Your task to perform on an android device: turn pop-ups on in chrome Image 0: 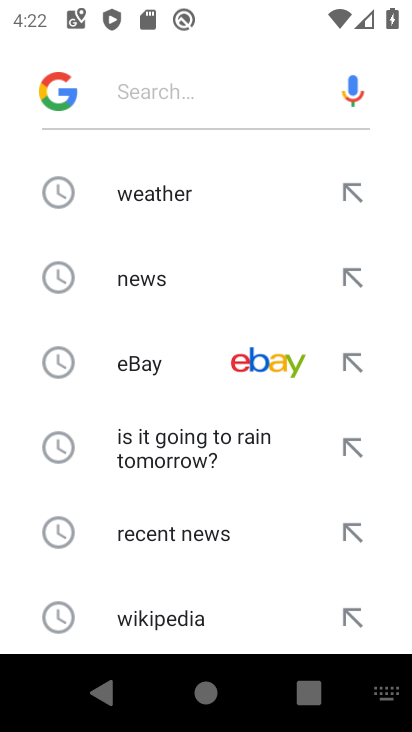
Step 0: press home button
Your task to perform on an android device: turn pop-ups on in chrome Image 1: 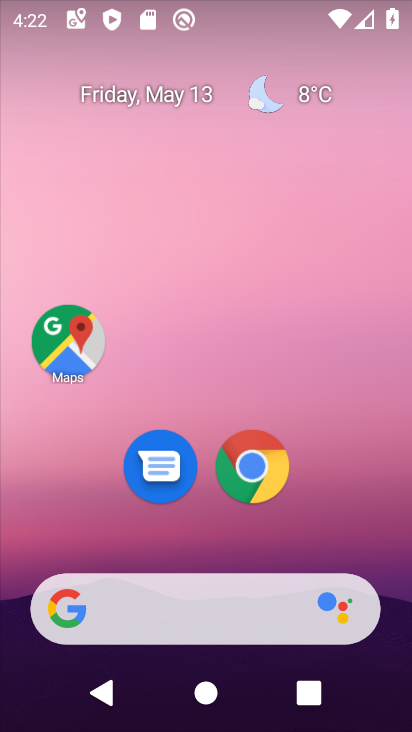
Step 1: click (251, 462)
Your task to perform on an android device: turn pop-ups on in chrome Image 2: 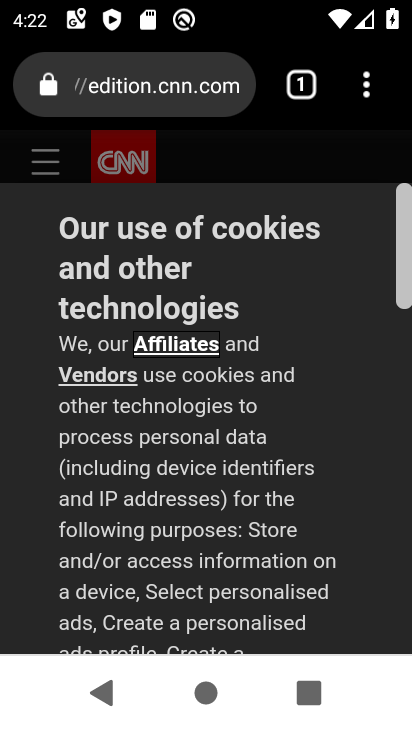
Step 2: click (366, 89)
Your task to perform on an android device: turn pop-ups on in chrome Image 3: 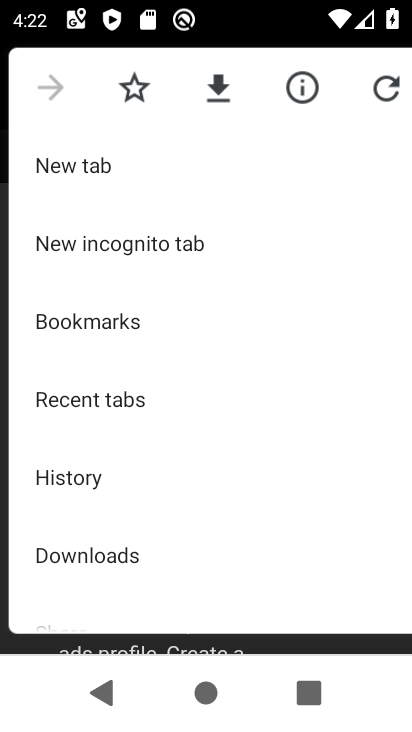
Step 3: drag from (217, 524) to (213, 169)
Your task to perform on an android device: turn pop-ups on in chrome Image 4: 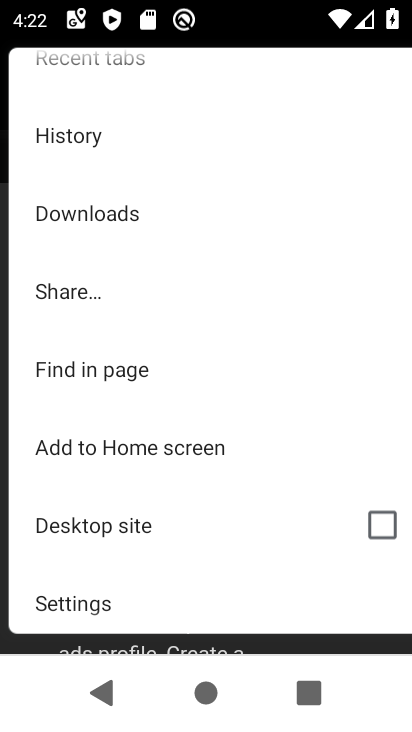
Step 4: drag from (195, 589) to (247, 272)
Your task to perform on an android device: turn pop-ups on in chrome Image 5: 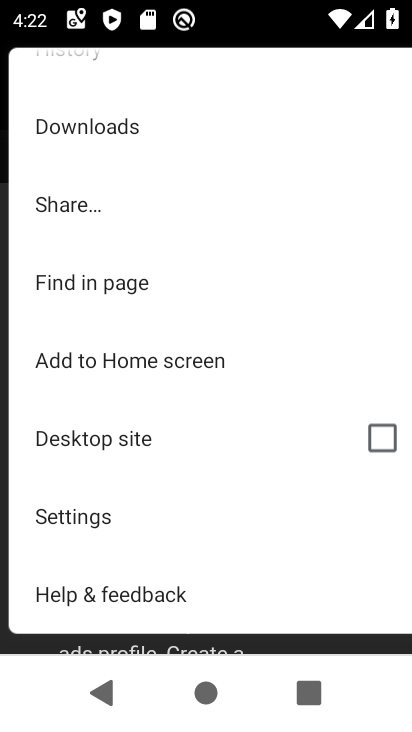
Step 5: click (86, 520)
Your task to perform on an android device: turn pop-ups on in chrome Image 6: 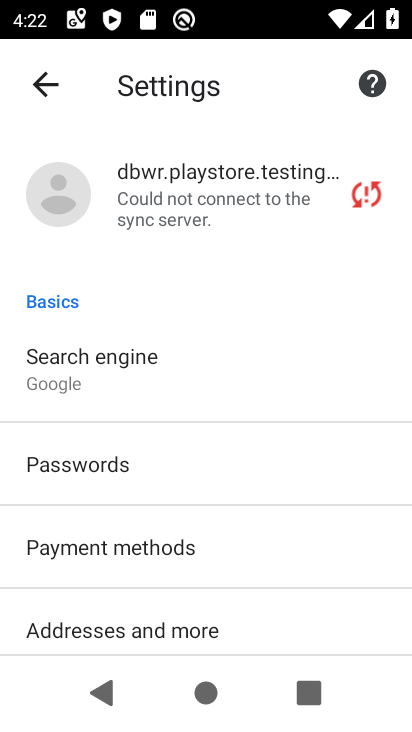
Step 6: drag from (263, 623) to (288, 195)
Your task to perform on an android device: turn pop-ups on in chrome Image 7: 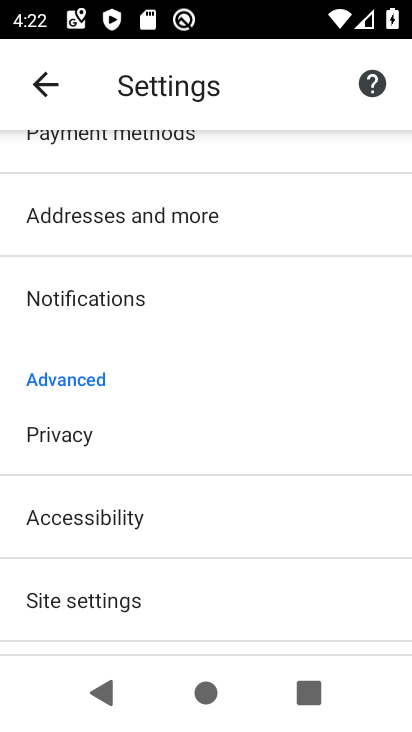
Step 7: click (106, 594)
Your task to perform on an android device: turn pop-ups on in chrome Image 8: 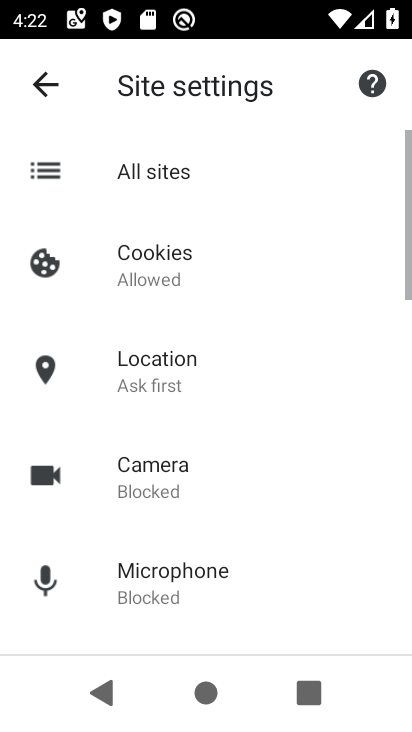
Step 8: drag from (232, 606) to (268, 213)
Your task to perform on an android device: turn pop-ups on in chrome Image 9: 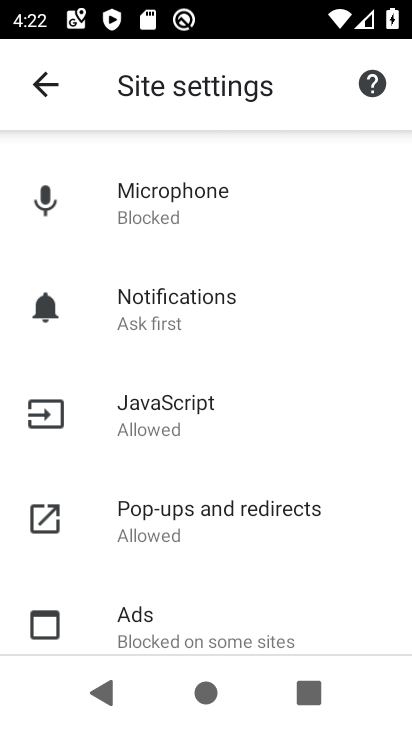
Step 9: click (166, 517)
Your task to perform on an android device: turn pop-ups on in chrome Image 10: 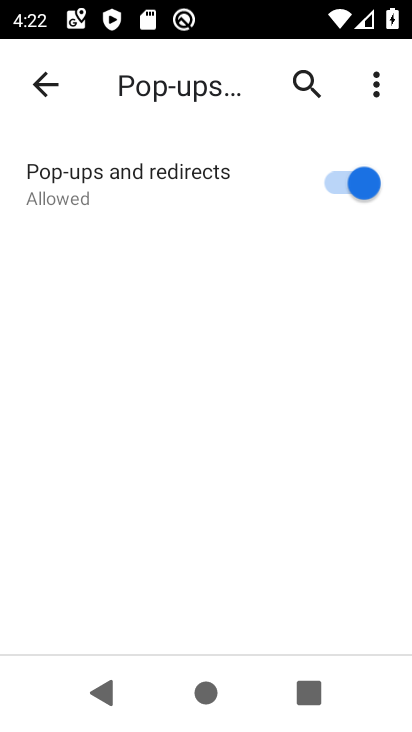
Step 10: task complete